Your task to perform on an android device: turn on improve location accuracy Image 0: 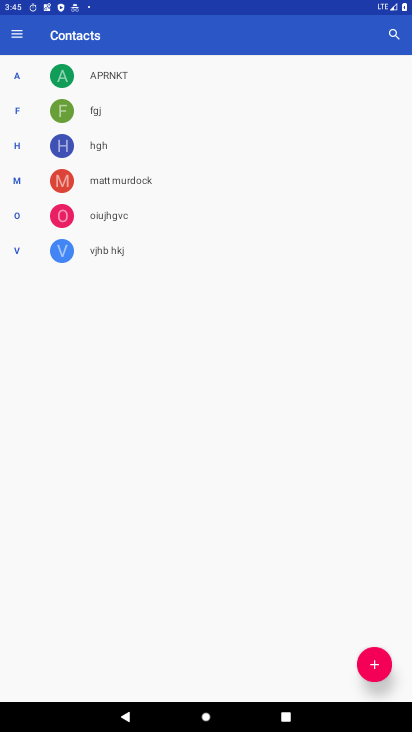
Step 0: press home button
Your task to perform on an android device: turn on improve location accuracy Image 1: 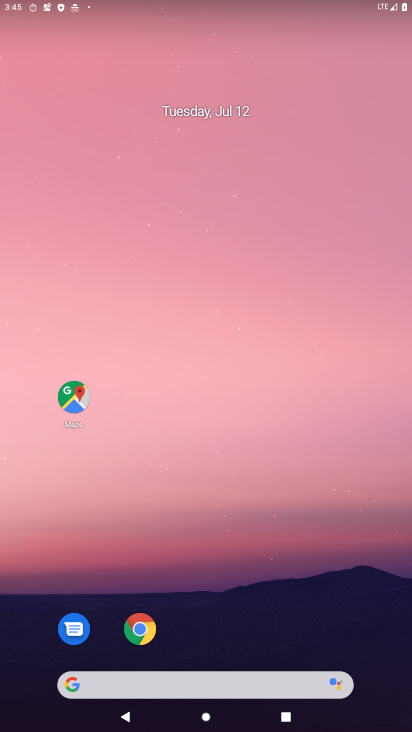
Step 1: drag from (321, 577) to (287, 156)
Your task to perform on an android device: turn on improve location accuracy Image 2: 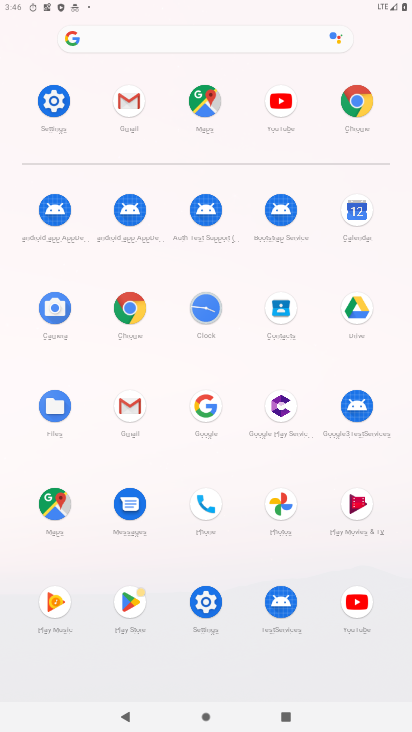
Step 2: click (203, 593)
Your task to perform on an android device: turn on improve location accuracy Image 3: 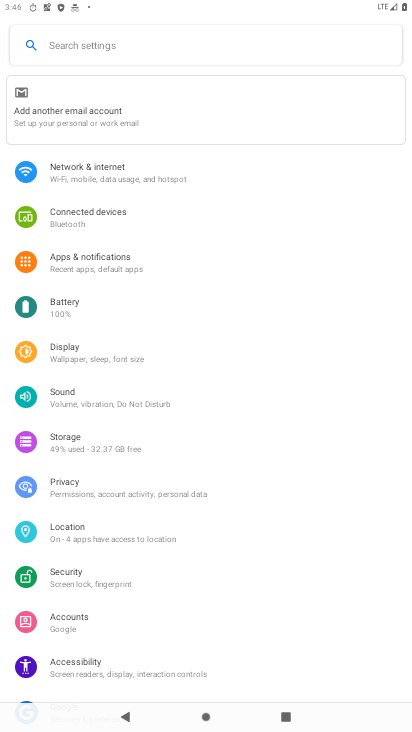
Step 3: click (57, 537)
Your task to perform on an android device: turn on improve location accuracy Image 4: 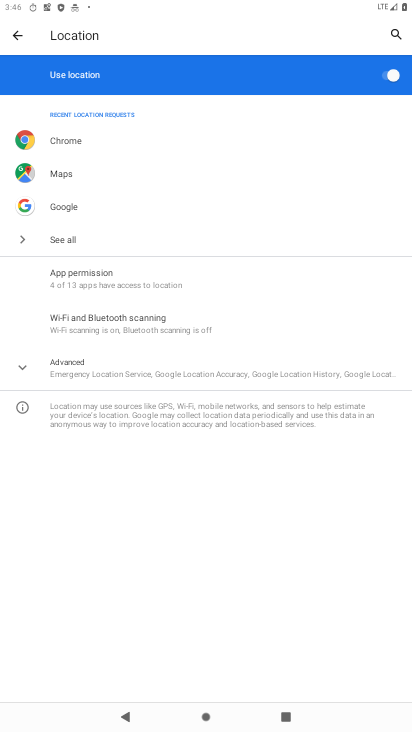
Step 4: click (73, 370)
Your task to perform on an android device: turn on improve location accuracy Image 5: 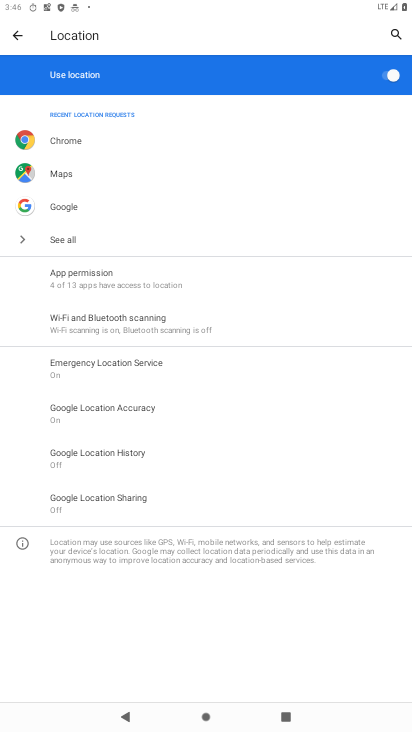
Step 5: click (96, 406)
Your task to perform on an android device: turn on improve location accuracy Image 6: 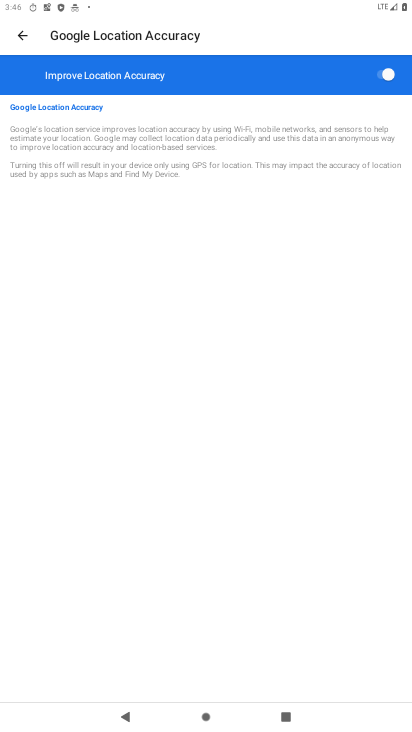
Step 6: task complete